Your task to perform on an android device: check android version Image 0: 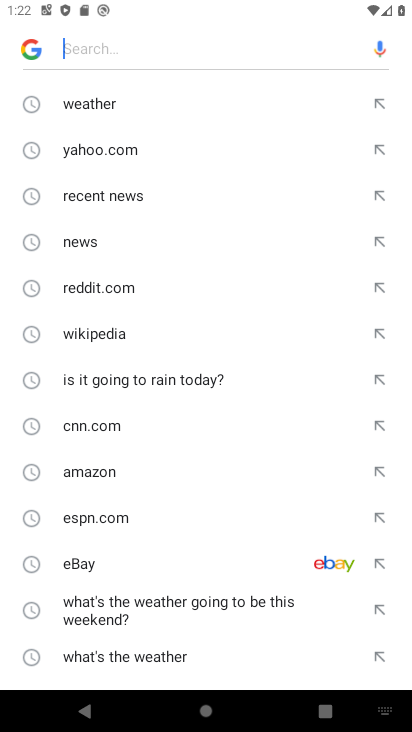
Step 0: press home button
Your task to perform on an android device: check android version Image 1: 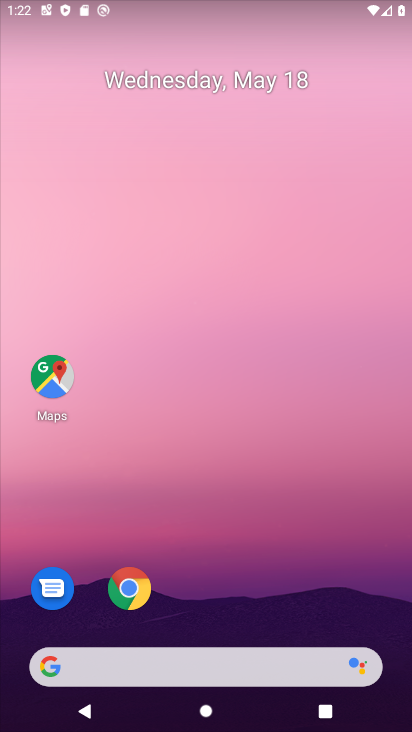
Step 1: drag from (291, 566) to (280, 52)
Your task to perform on an android device: check android version Image 2: 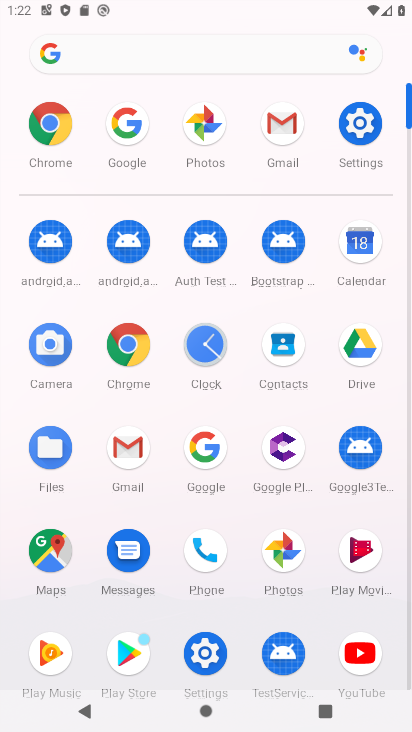
Step 2: click (363, 105)
Your task to perform on an android device: check android version Image 3: 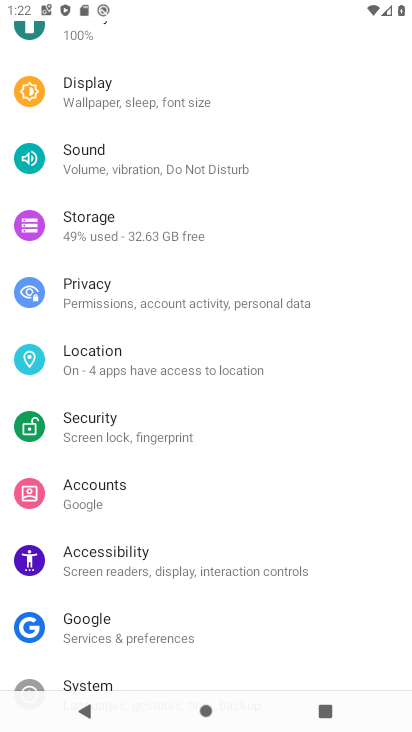
Step 3: drag from (338, 569) to (349, 371)
Your task to perform on an android device: check android version Image 4: 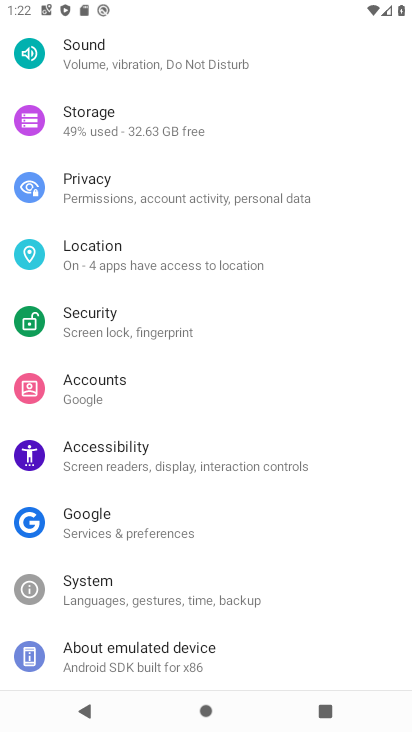
Step 4: drag from (347, 577) to (352, 308)
Your task to perform on an android device: check android version Image 5: 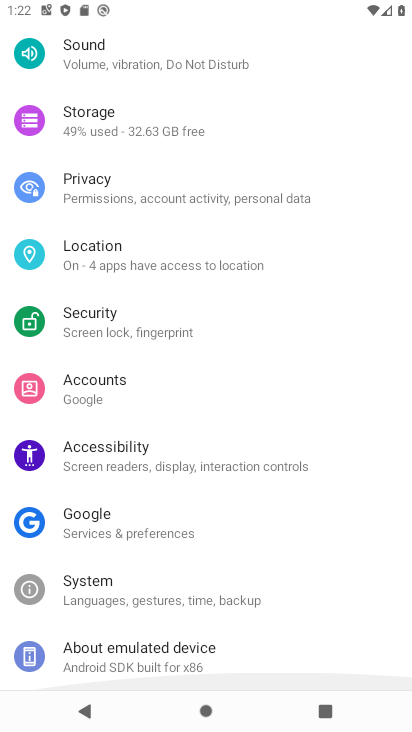
Step 5: drag from (346, 220) to (339, 405)
Your task to perform on an android device: check android version Image 6: 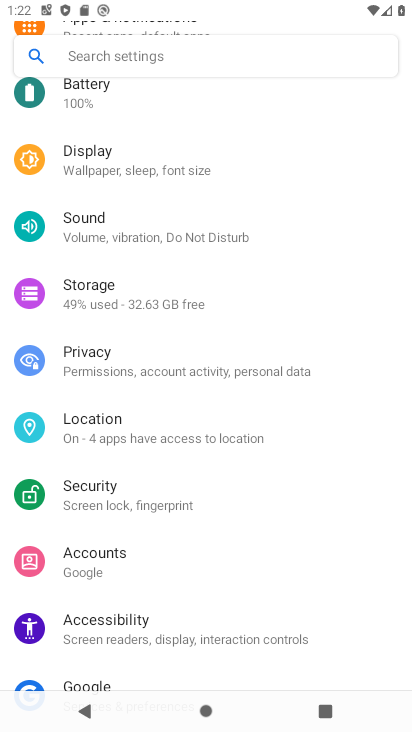
Step 6: drag from (344, 216) to (348, 440)
Your task to perform on an android device: check android version Image 7: 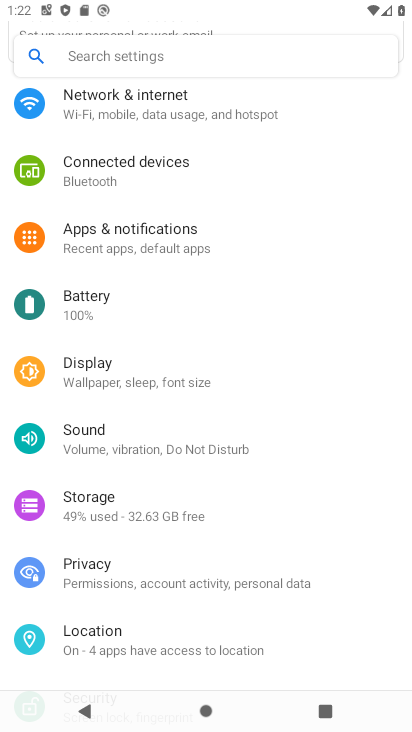
Step 7: drag from (328, 498) to (338, 260)
Your task to perform on an android device: check android version Image 8: 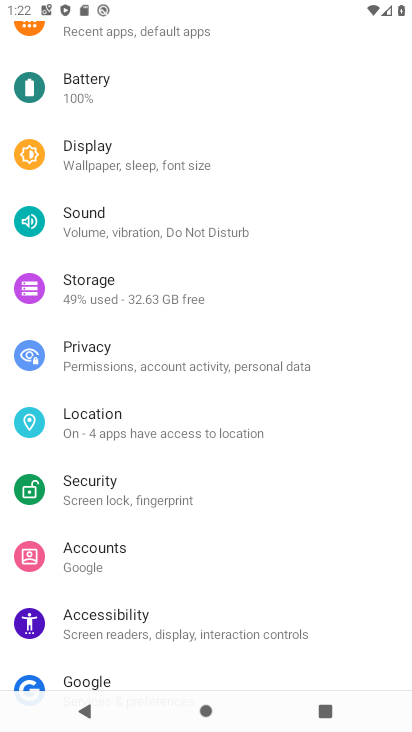
Step 8: drag from (315, 551) to (309, 311)
Your task to perform on an android device: check android version Image 9: 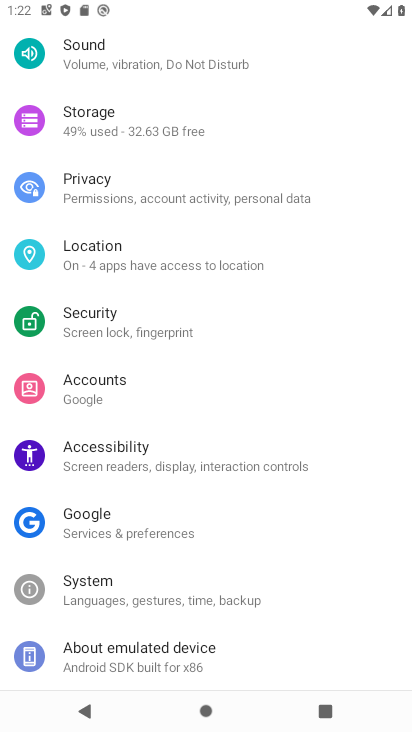
Step 9: drag from (311, 591) to (314, 361)
Your task to perform on an android device: check android version Image 10: 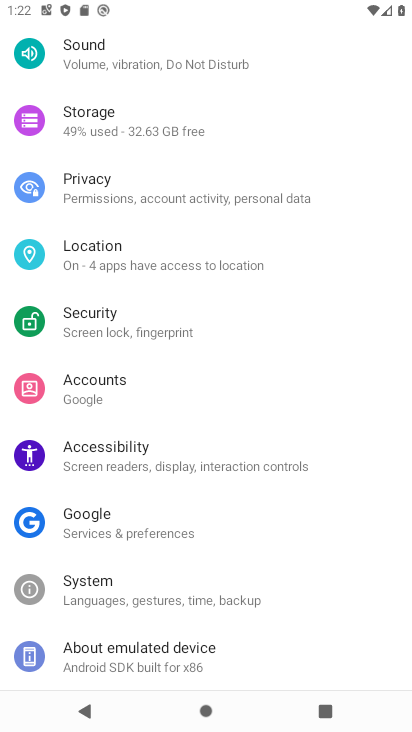
Step 10: click (189, 597)
Your task to perform on an android device: check android version Image 11: 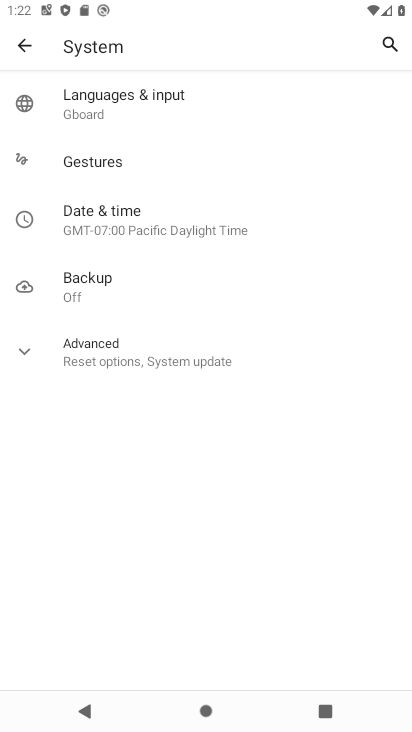
Step 11: click (139, 356)
Your task to perform on an android device: check android version Image 12: 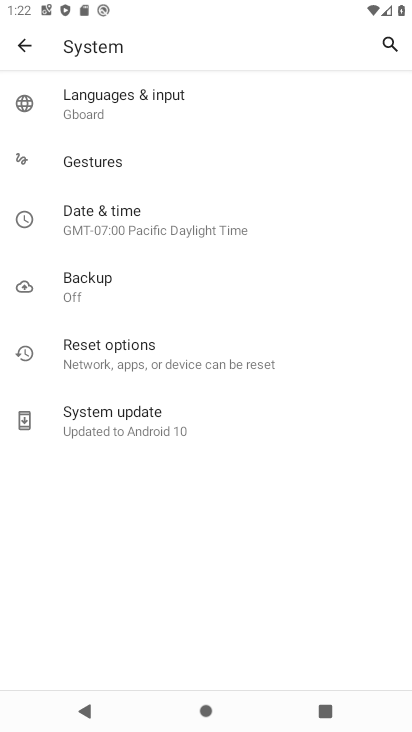
Step 12: click (121, 421)
Your task to perform on an android device: check android version Image 13: 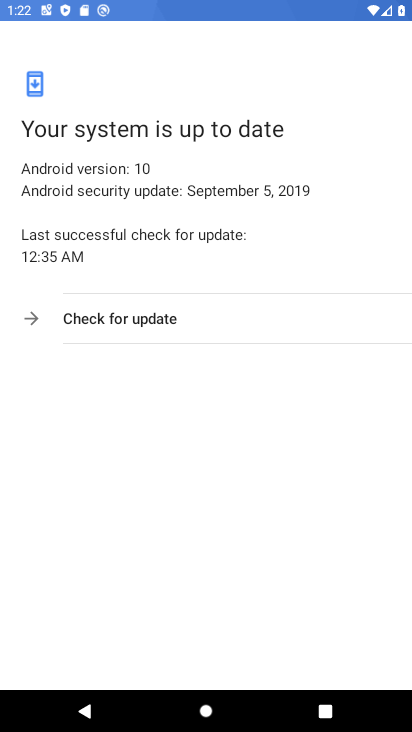
Step 13: task complete